Your task to perform on an android device: Clear the shopping cart on bestbuy.com. Add "usb-b" to the cart on bestbuy.com Image 0: 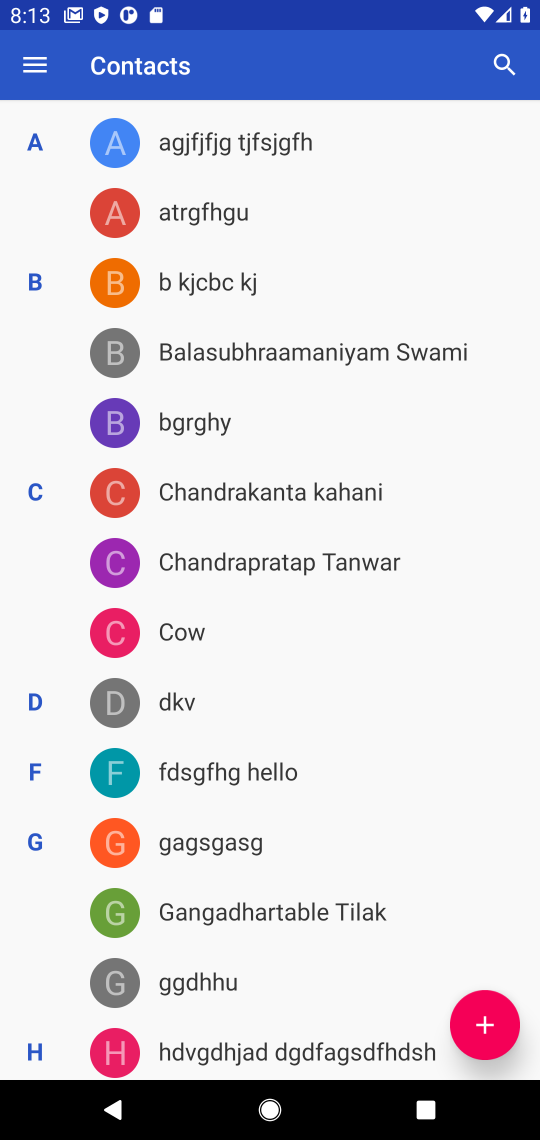
Step 0: press home button
Your task to perform on an android device: Clear the shopping cart on bestbuy.com. Add "usb-b" to the cart on bestbuy.com Image 1: 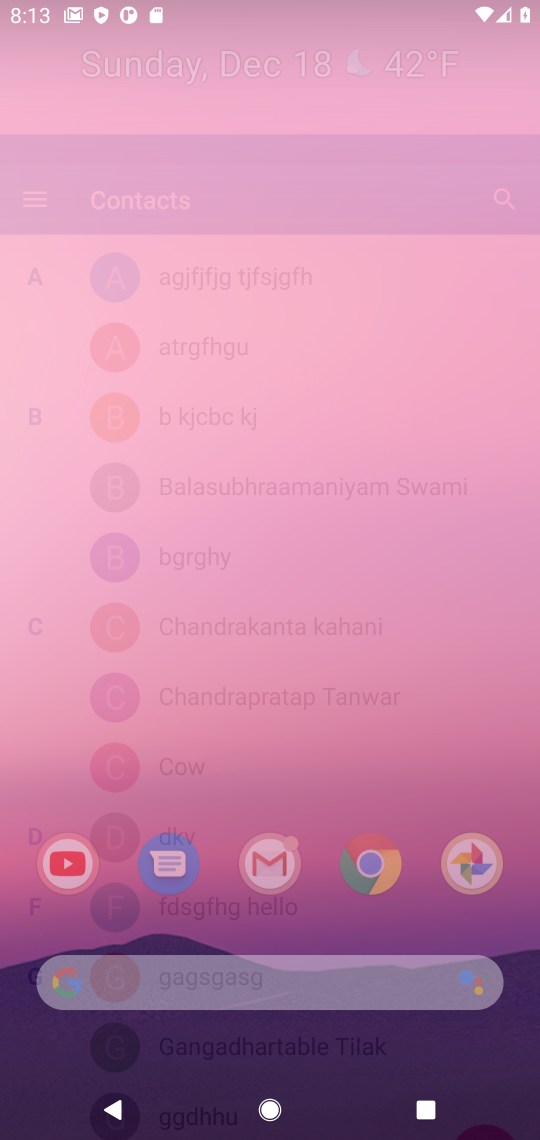
Step 1: press home button
Your task to perform on an android device: Clear the shopping cart on bestbuy.com. Add "usb-b" to the cart on bestbuy.com Image 2: 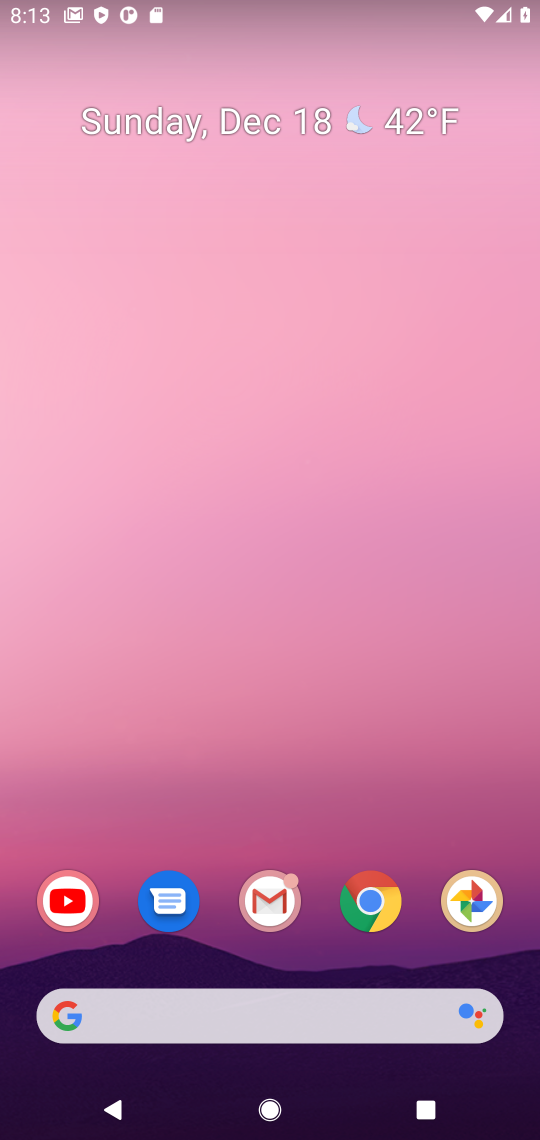
Step 2: click (373, 876)
Your task to perform on an android device: Clear the shopping cart on bestbuy.com. Add "usb-b" to the cart on bestbuy.com Image 3: 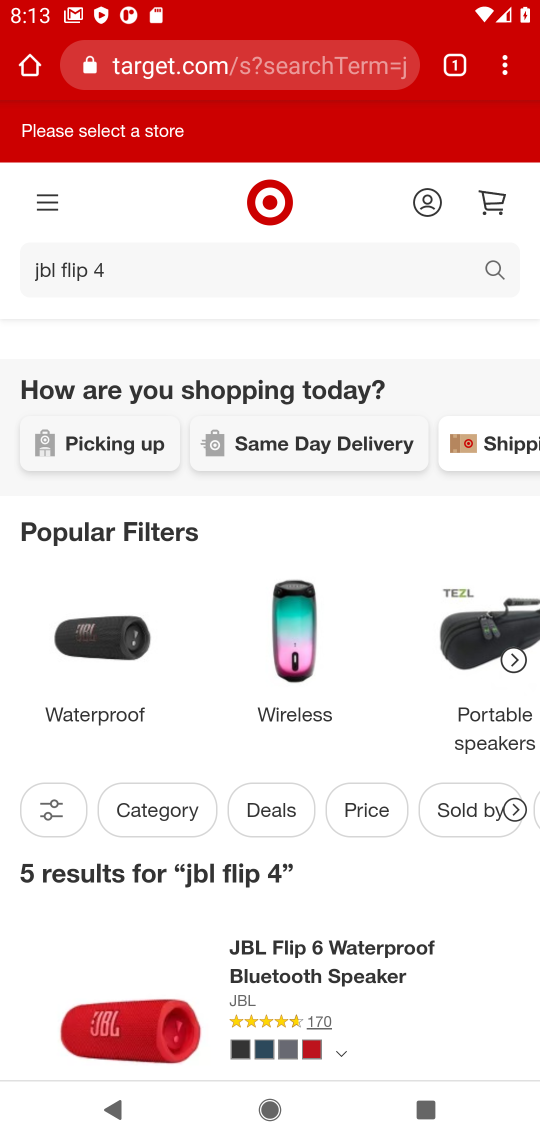
Step 3: click (239, 61)
Your task to perform on an android device: Clear the shopping cart on bestbuy.com. Add "usb-b" to the cart on bestbuy.com Image 4: 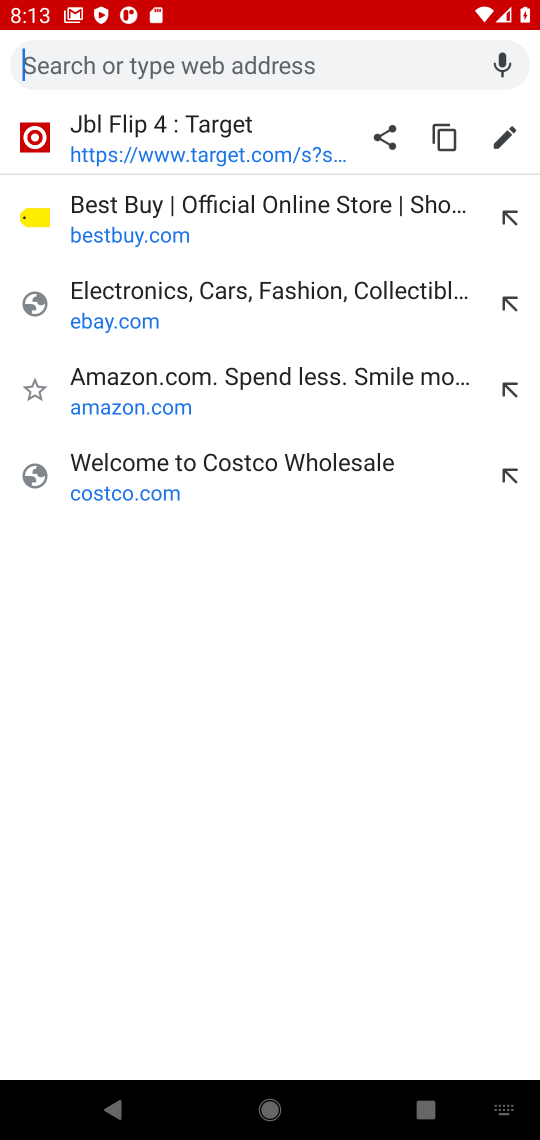
Step 4: type "bestbuy"
Your task to perform on an android device: Clear the shopping cart on bestbuy.com. Add "usb-b" to the cart on bestbuy.com Image 5: 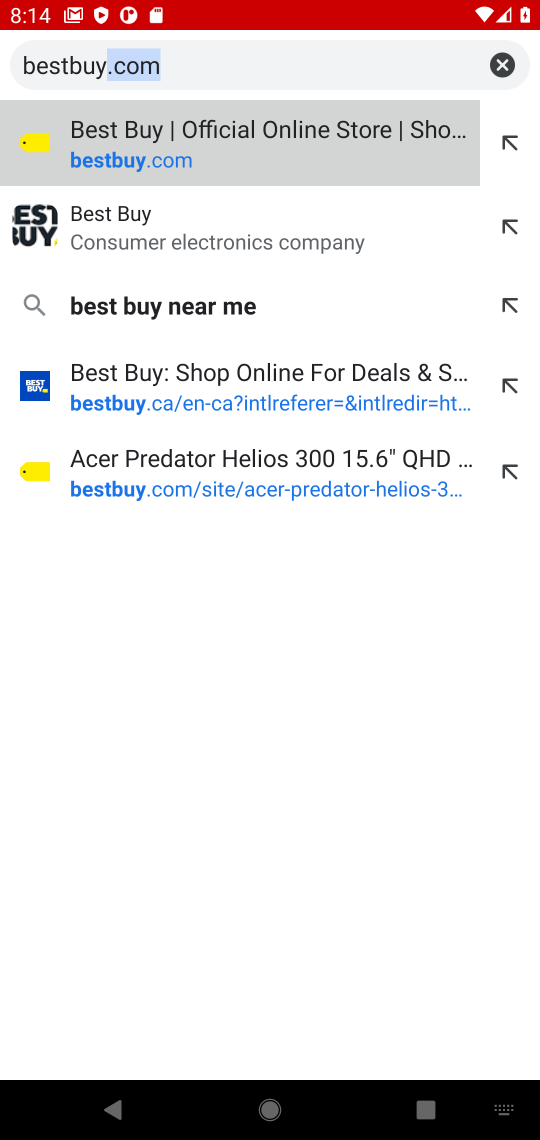
Step 5: click (156, 124)
Your task to perform on an android device: Clear the shopping cart on bestbuy.com. Add "usb-b" to the cart on bestbuy.com Image 6: 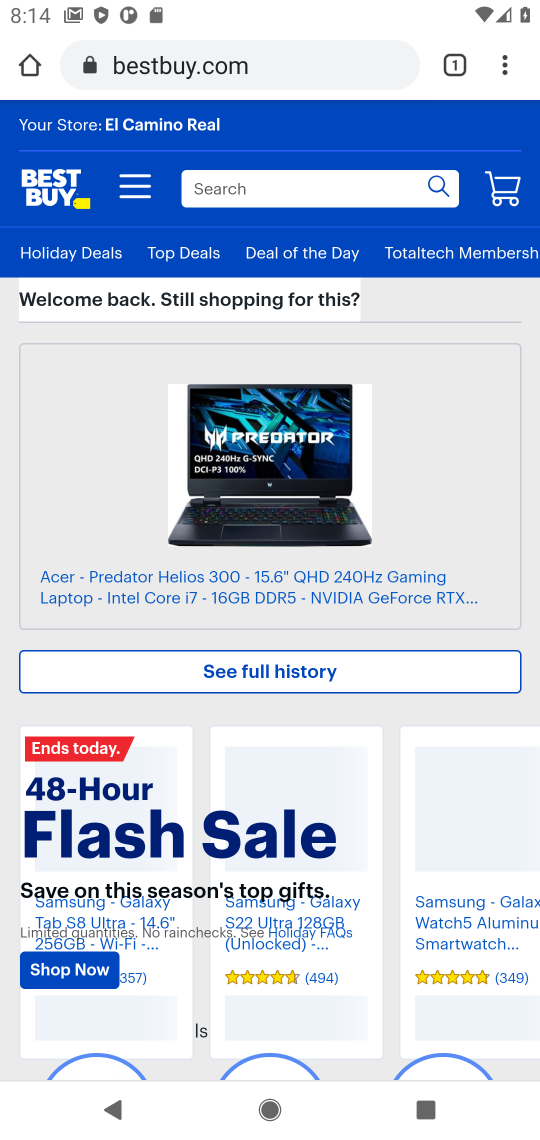
Step 6: click (262, 193)
Your task to perform on an android device: Clear the shopping cart on bestbuy.com. Add "usb-b" to the cart on bestbuy.com Image 7: 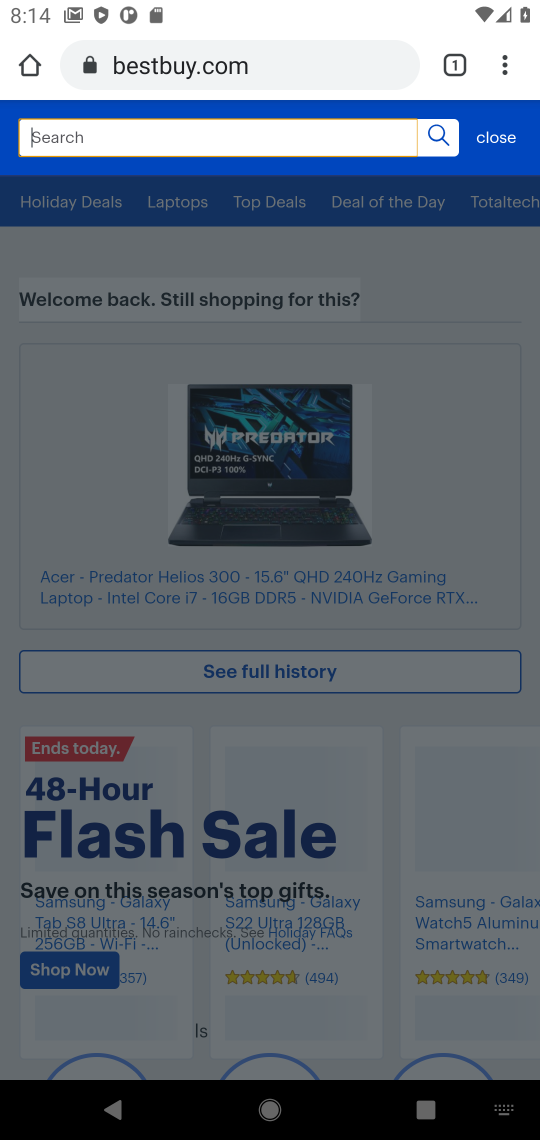
Step 7: type "usb-b"
Your task to perform on an android device: Clear the shopping cart on bestbuy.com. Add "usb-b" to the cart on bestbuy.com Image 8: 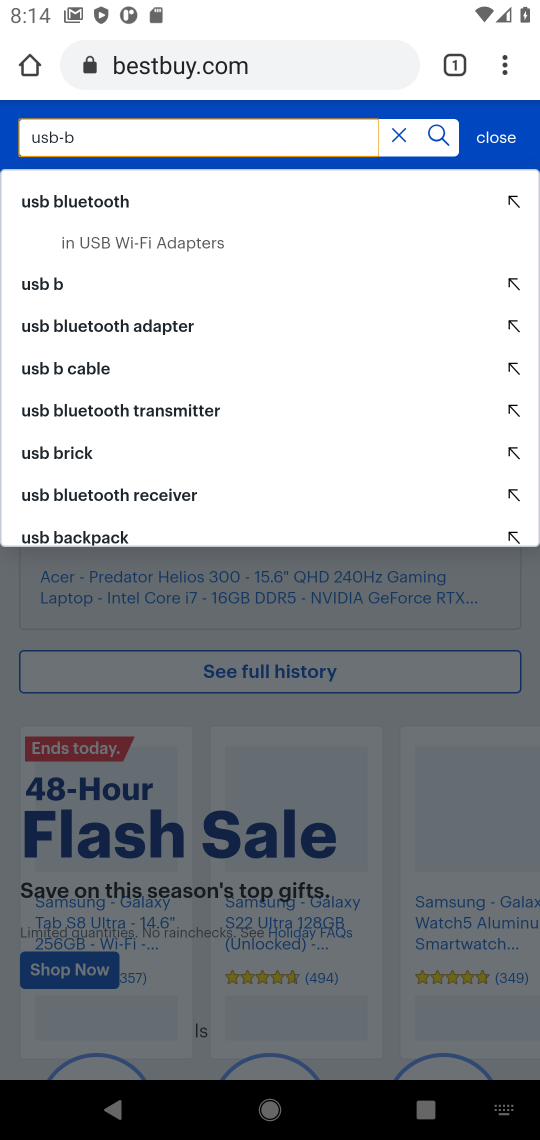
Step 8: click (436, 149)
Your task to perform on an android device: Clear the shopping cart on bestbuy.com. Add "usb-b" to the cart on bestbuy.com Image 9: 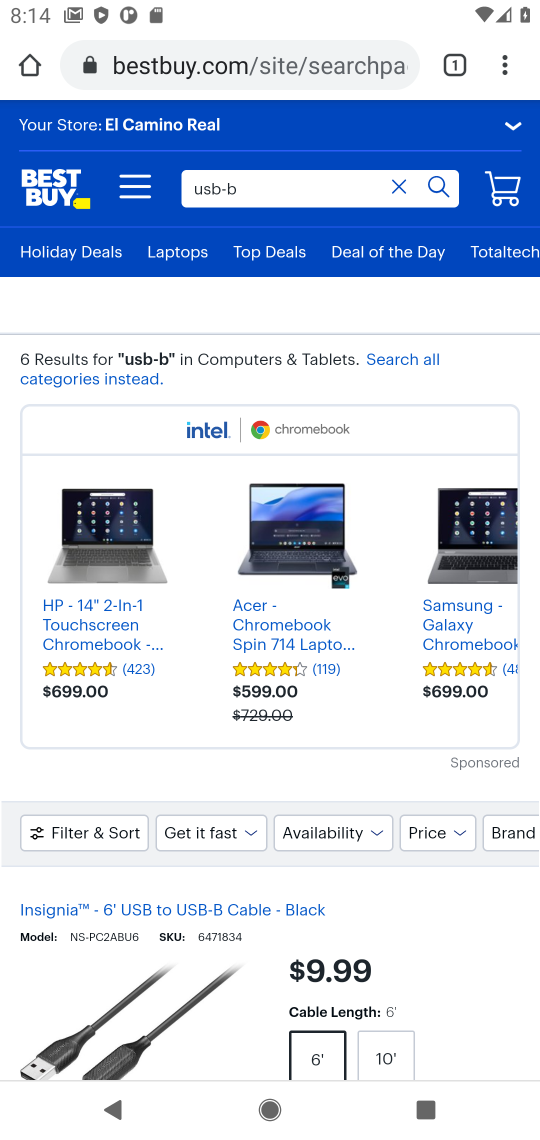
Step 9: drag from (446, 1028) to (446, 736)
Your task to perform on an android device: Clear the shopping cart on bestbuy.com. Add "usb-b" to the cart on bestbuy.com Image 10: 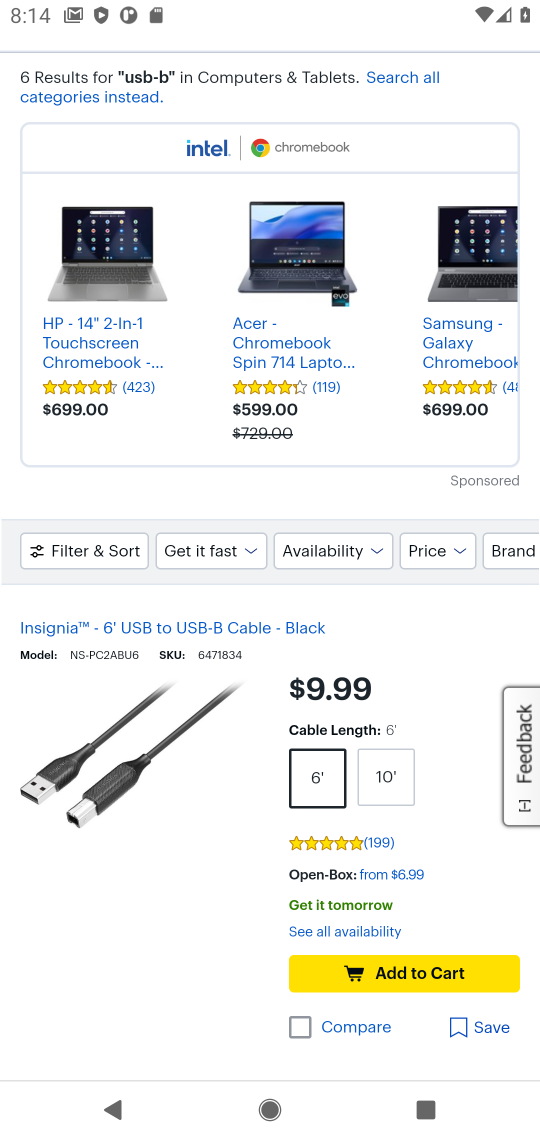
Step 10: click (420, 962)
Your task to perform on an android device: Clear the shopping cart on bestbuy.com. Add "usb-b" to the cart on bestbuy.com Image 11: 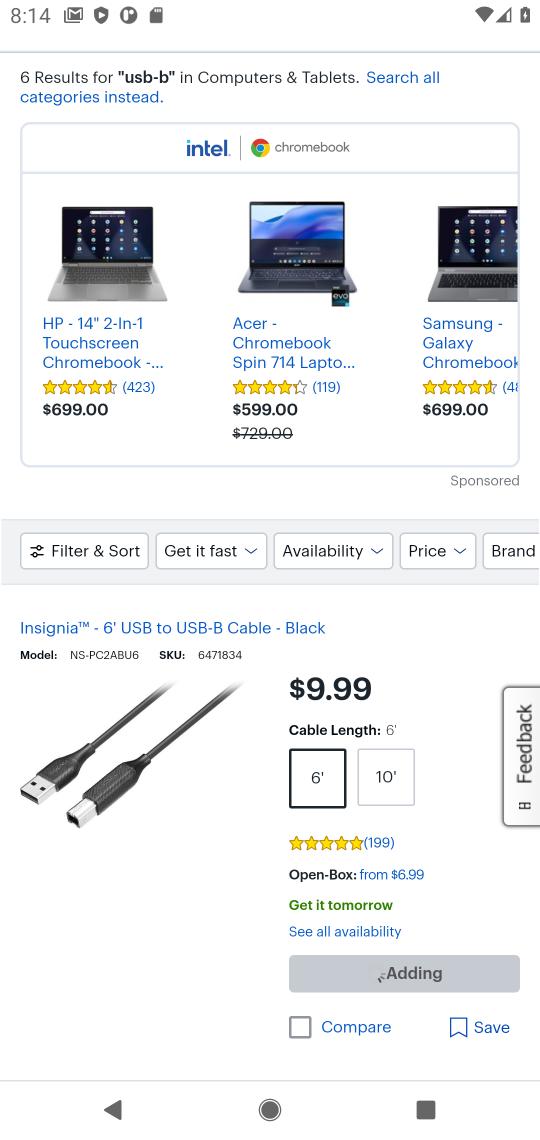
Step 11: task complete